Your task to perform on an android device: Toggle the flashlight Image 0: 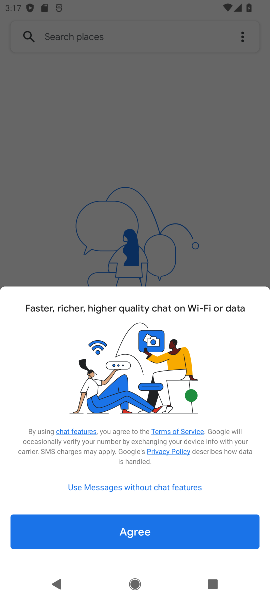
Step 0: press home button
Your task to perform on an android device: Toggle the flashlight Image 1: 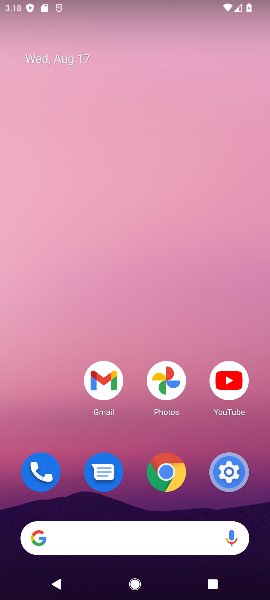
Step 1: drag from (130, 436) to (145, 143)
Your task to perform on an android device: Toggle the flashlight Image 2: 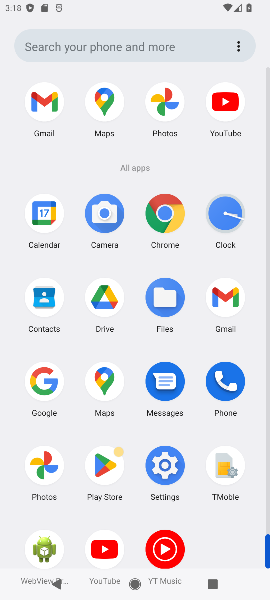
Step 2: click (152, 451)
Your task to perform on an android device: Toggle the flashlight Image 3: 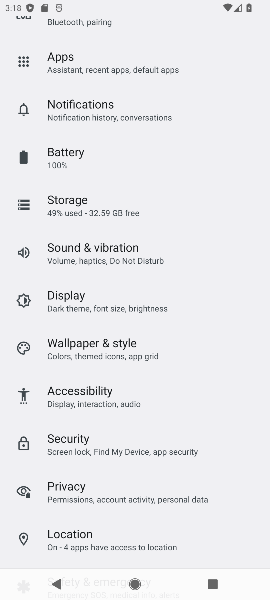
Step 3: task complete